Your task to perform on an android device: empty trash in google photos Image 0: 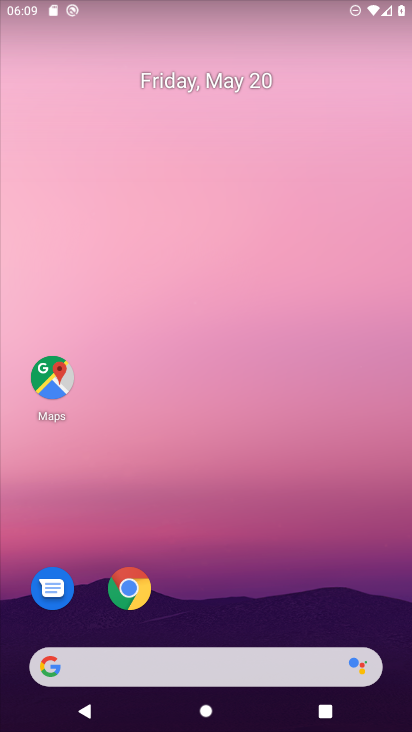
Step 0: drag from (242, 599) to (251, 7)
Your task to perform on an android device: empty trash in google photos Image 1: 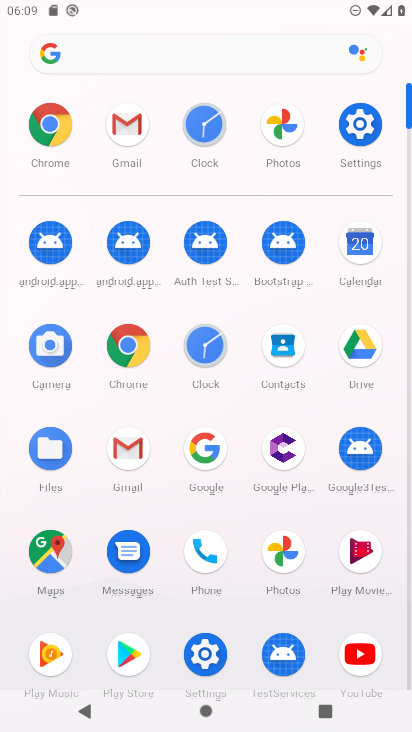
Step 1: click (279, 565)
Your task to perform on an android device: empty trash in google photos Image 2: 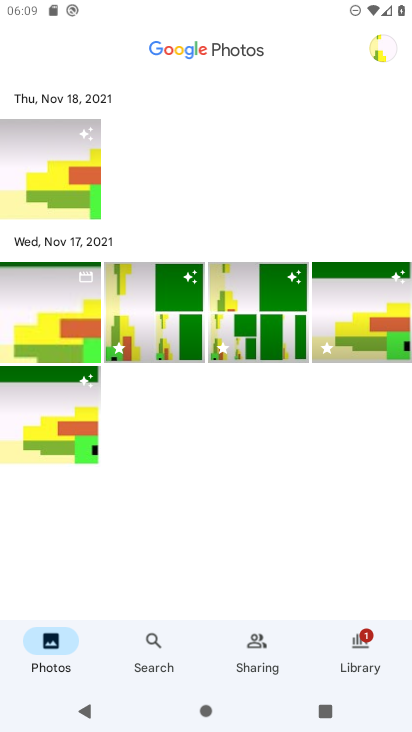
Step 2: click (351, 666)
Your task to perform on an android device: empty trash in google photos Image 3: 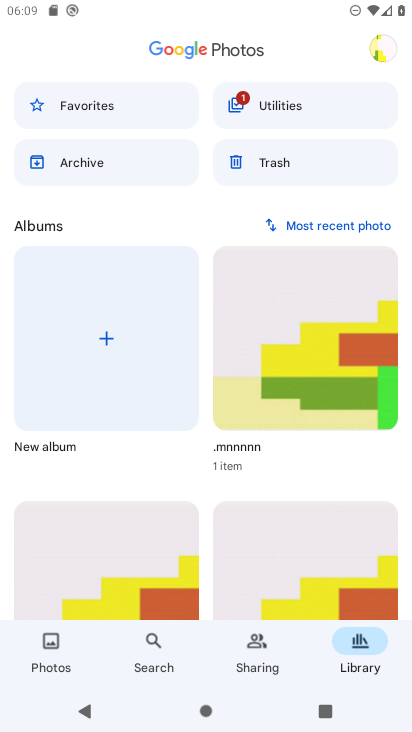
Step 3: click (273, 152)
Your task to perform on an android device: empty trash in google photos Image 4: 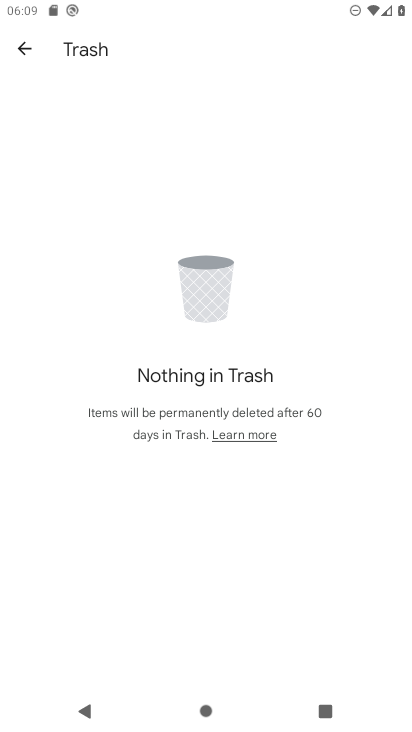
Step 4: task complete